Your task to perform on an android device: open wifi settings Image 0: 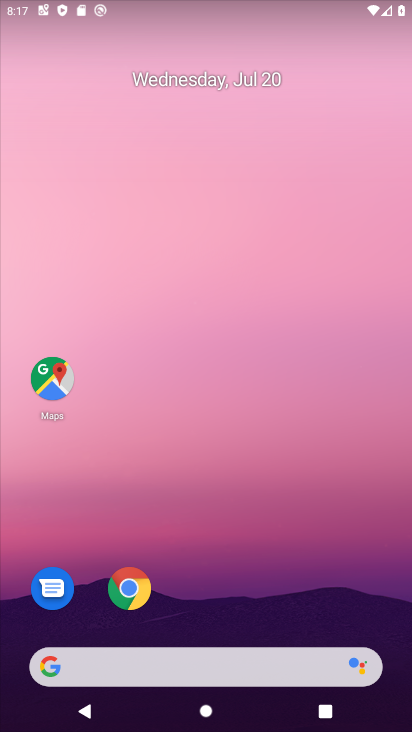
Step 0: drag from (366, 426) to (359, 662)
Your task to perform on an android device: open wifi settings Image 1: 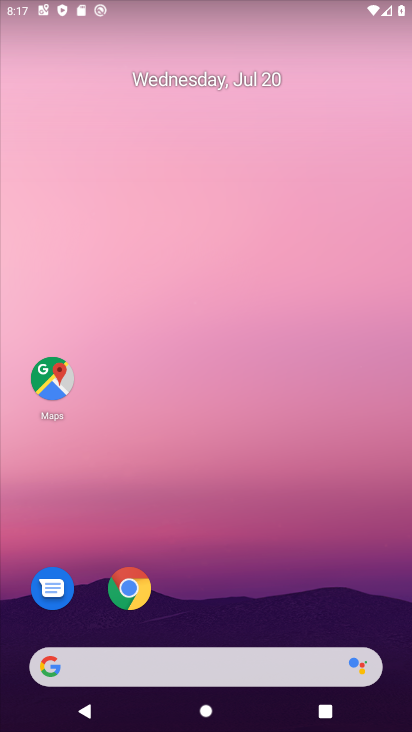
Step 1: drag from (293, 690) to (315, 104)
Your task to perform on an android device: open wifi settings Image 2: 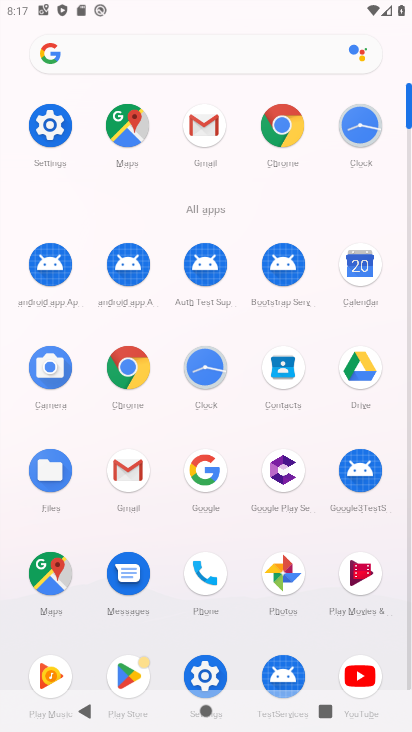
Step 2: click (62, 119)
Your task to perform on an android device: open wifi settings Image 3: 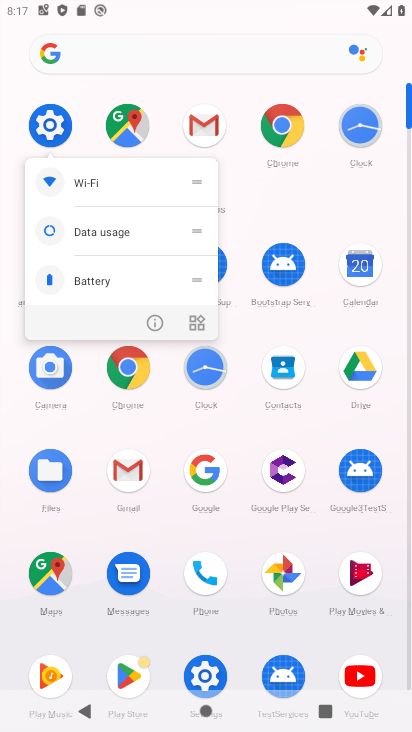
Step 3: click (62, 119)
Your task to perform on an android device: open wifi settings Image 4: 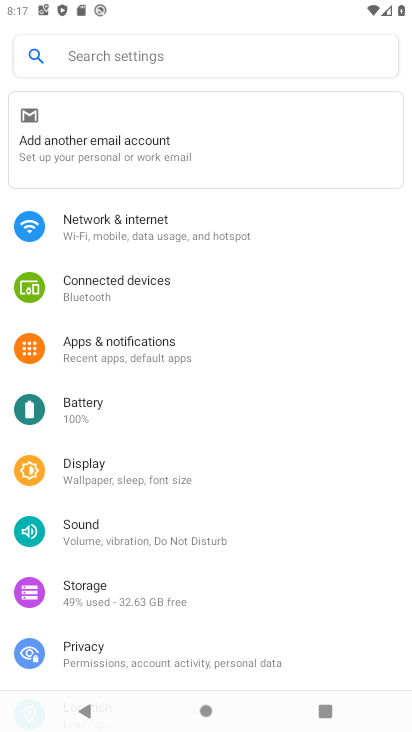
Step 4: click (188, 233)
Your task to perform on an android device: open wifi settings Image 5: 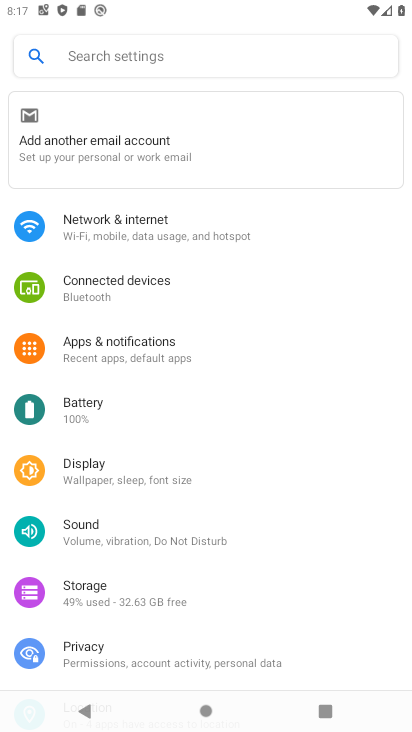
Step 5: click (188, 233)
Your task to perform on an android device: open wifi settings Image 6: 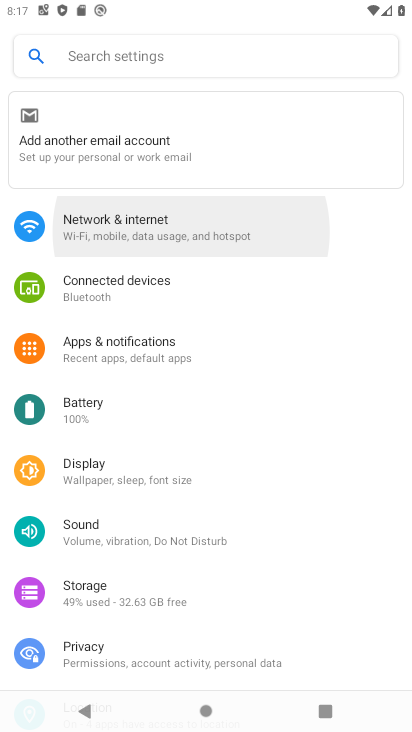
Step 6: click (188, 233)
Your task to perform on an android device: open wifi settings Image 7: 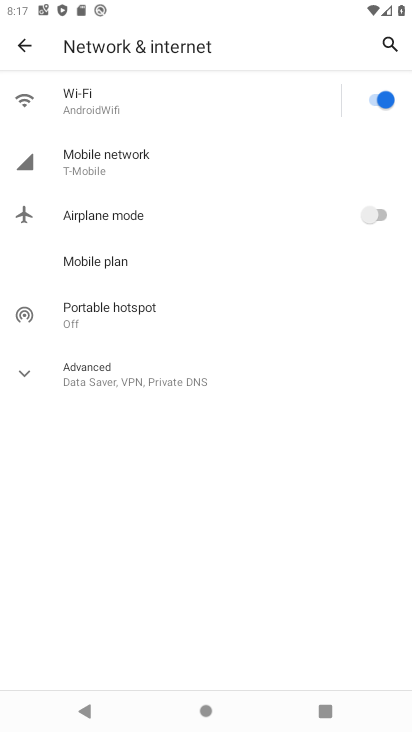
Step 7: click (134, 107)
Your task to perform on an android device: open wifi settings Image 8: 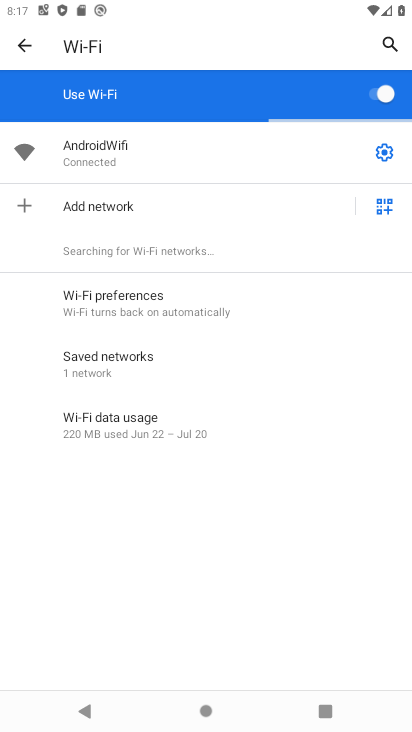
Step 8: click (388, 154)
Your task to perform on an android device: open wifi settings Image 9: 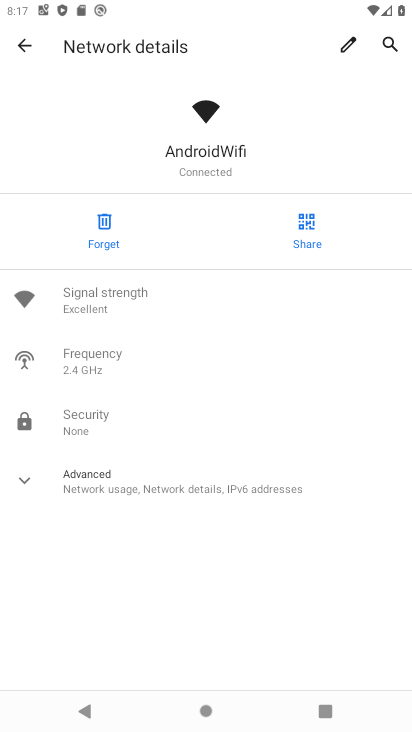
Step 9: task complete